Your task to perform on an android device: turn on wifi Image 0: 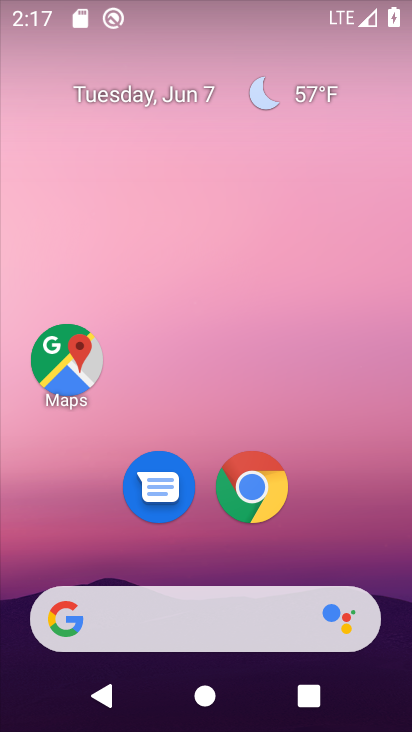
Step 0: drag from (205, 568) to (203, 4)
Your task to perform on an android device: turn on wifi Image 1: 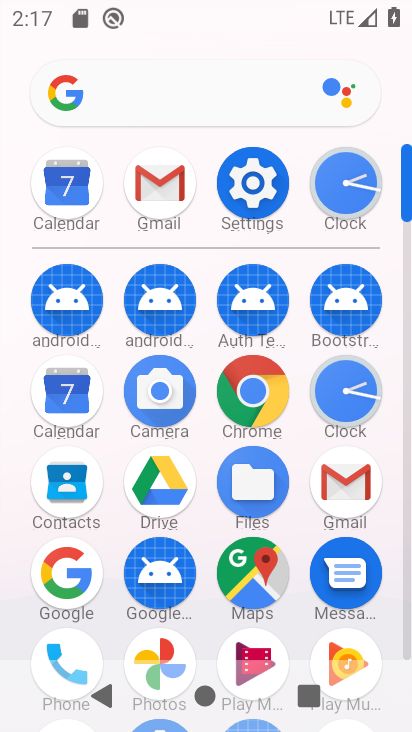
Step 1: click (263, 203)
Your task to perform on an android device: turn on wifi Image 2: 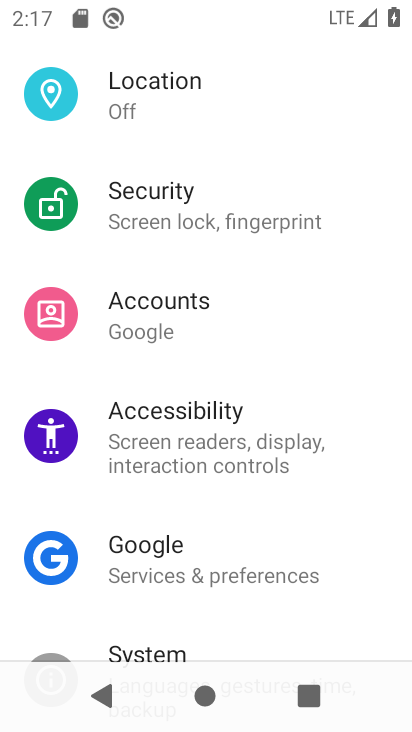
Step 2: drag from (269, 218) to (197, 682)
Your task to perform on an android device: turn on wifi Image 3: 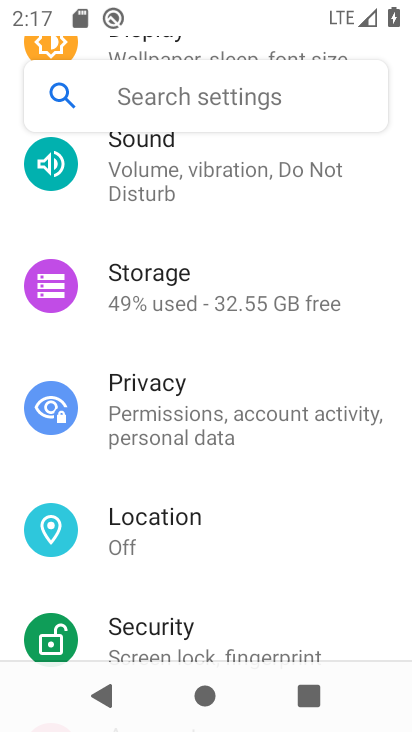
Step 3: drag from (227, 218) to (184, 651)
Your task to perform on an android device: turn on wifi Image 4: 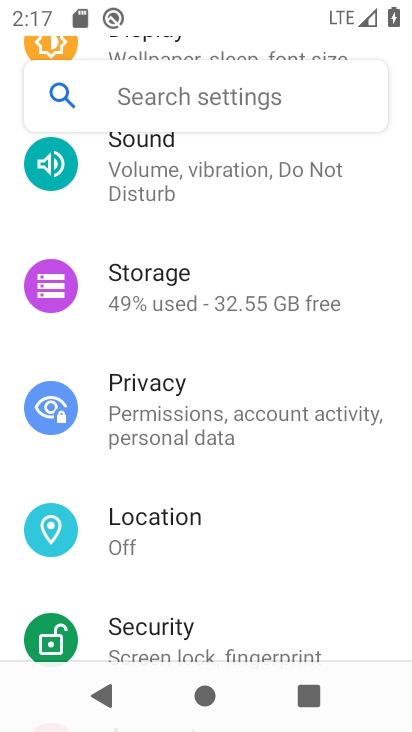
Step 4: drag from (185, 179) to (186, 600)
Your task to perform on an android device: turn on wifi Image 5: 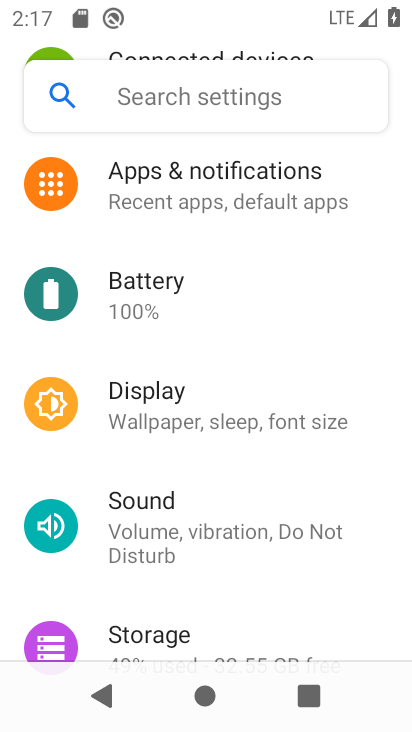
Step 5: drag from (210, 196) to (205, 581)
Your task to perform on an android device: turn on wifi Image 6: 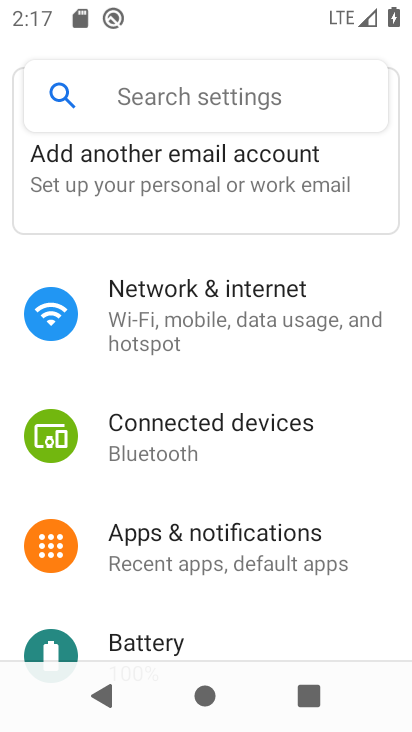
Step 6: click (219, 307)
Your task to perform on an android device: turn on wifi Image 7: 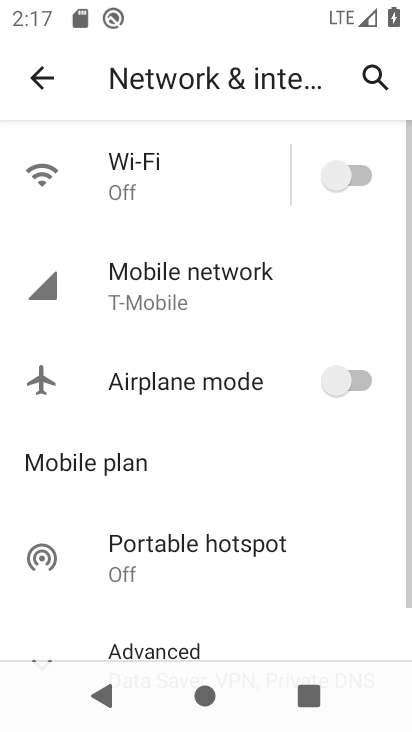
Step 7: click (215, 284)
Your task to perform on an android device: turn on wifi Image 8: 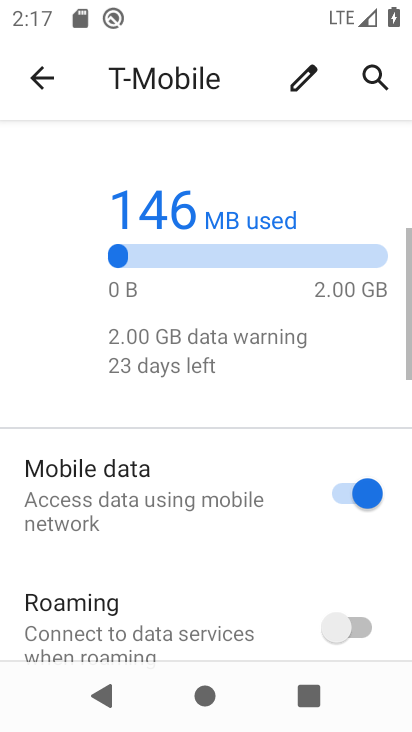
Step 8: click (52, 88)
Your task to perform on an android device: turn on wifi Image 9: 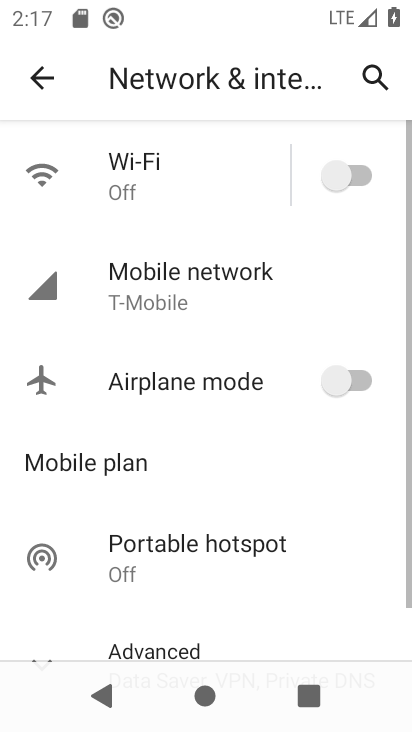
Step 9: click (353, 175)
Your task to perform on an android device: turn on wifi Image 10: 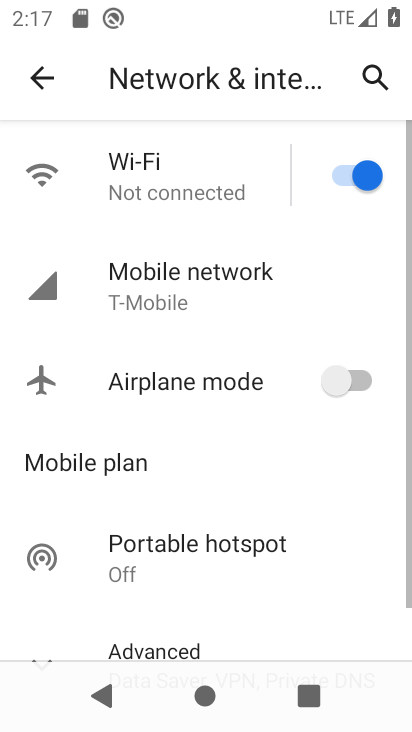
Step 10: task complete